Your task to perform on an android device: Go to internet settings Image 0: 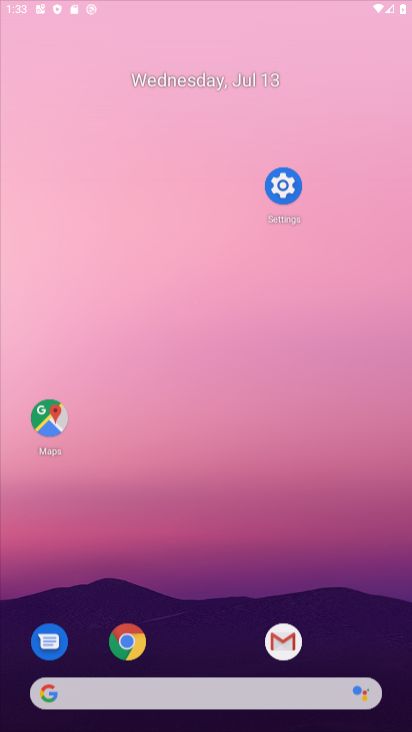
Step 0: press home button
Your task to perform on an android device: Go to internet settings Image 1: 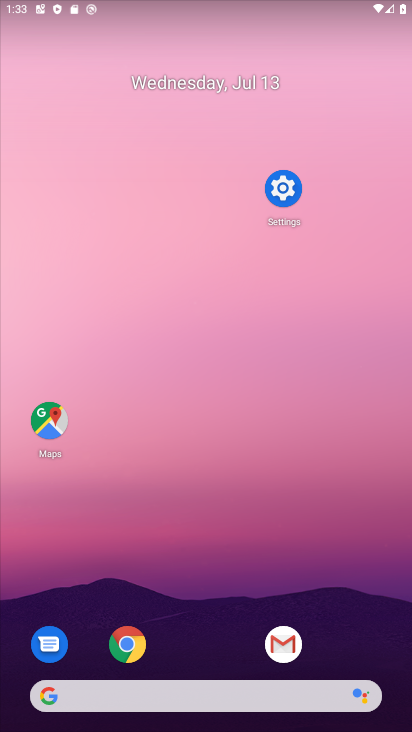
Step 1: click (298, 196)
Your task to perform on an android device: Go to internet settings Image 2: 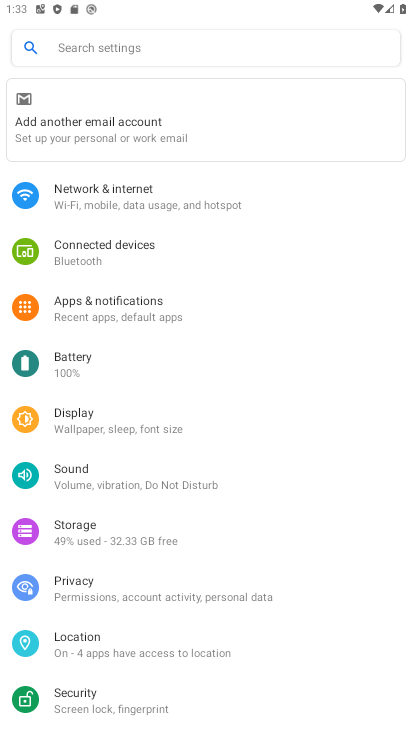
Step 2: click (129, 203)
Your task to perform on an android device: Go to internet settings Image 3: 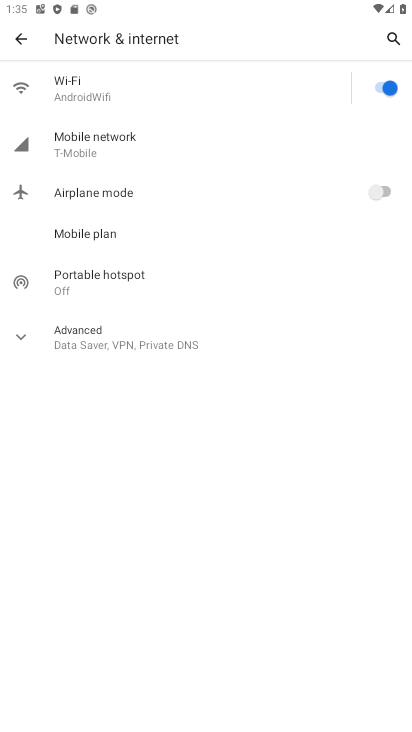
Step 3: task complete